Your task to perform on an android device: show emergency info Image 0: 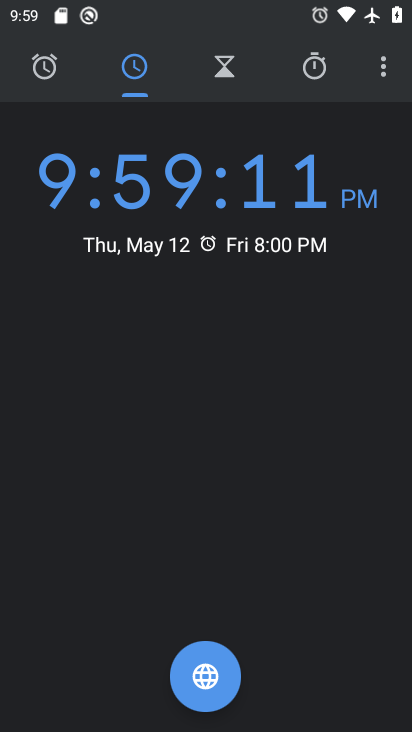
Step 0: press home button
Your task to perform on an android device: show emergency info Image 1: 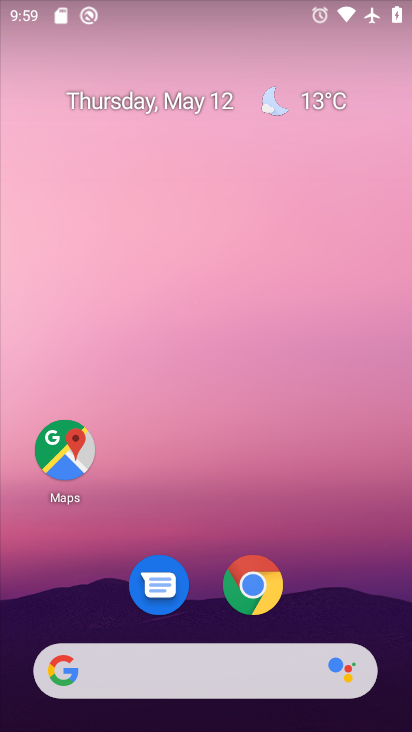
Step 1: drag from (248, 487) to (166, 35)
Your task to perform on an android device: show emergency info Image 2: 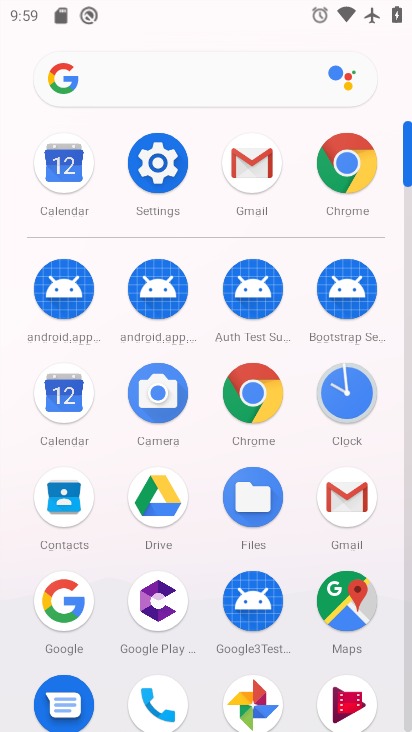
Step 2: click (147, 174)
Your task to perform on an android device: show emergency info Image 3: 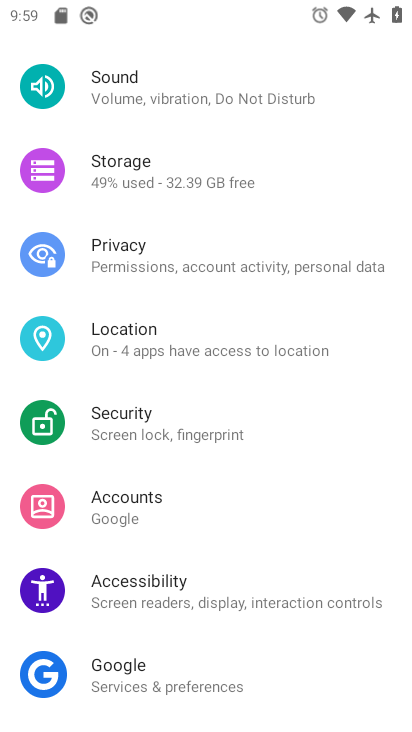
Step 3: drag from (261, 600) to (231, 197)
Your task to perform on an android device: show emergency info Image 4: 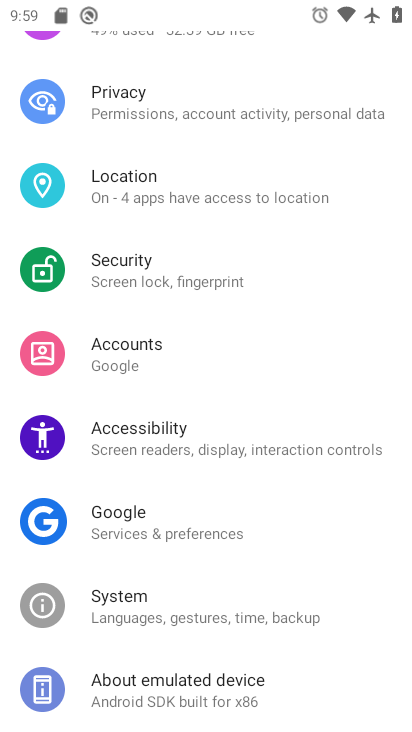
Step 4: click (198, 683)
Your task to perform on an android device: show emergency info Image 5: 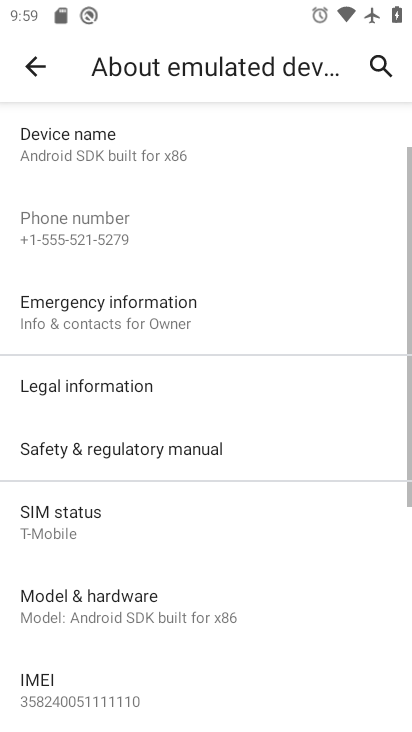
Step 5: click (155, 319)
Your task to perform on an android device: show emergency info Image 6: 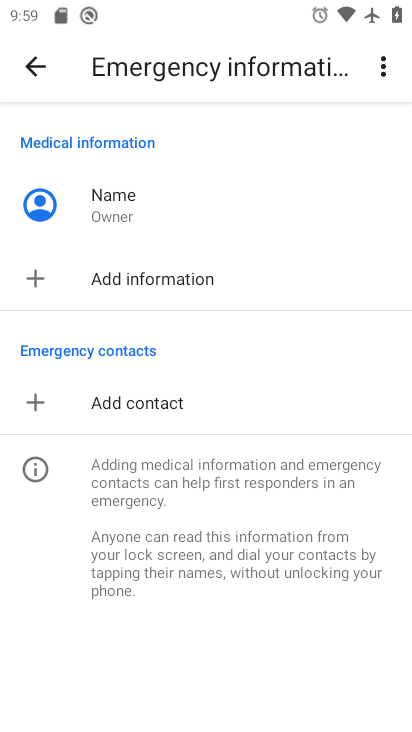
Step 6: task complete